Your task to perform on an android device: Open notification settings Image 0: 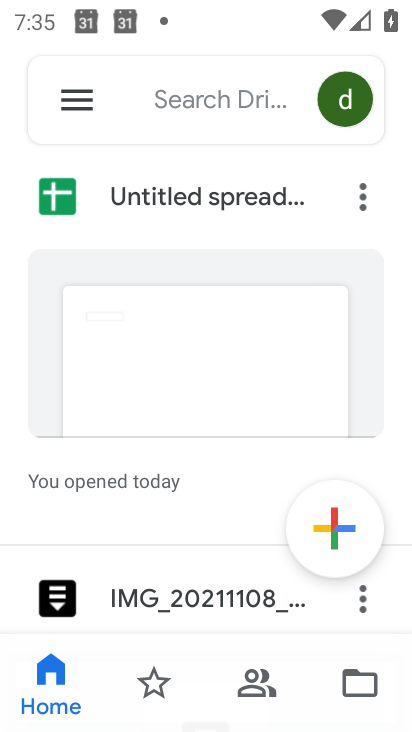
Step 0: press home button
Your task to perform on an android device: Open notification settings Image 1: 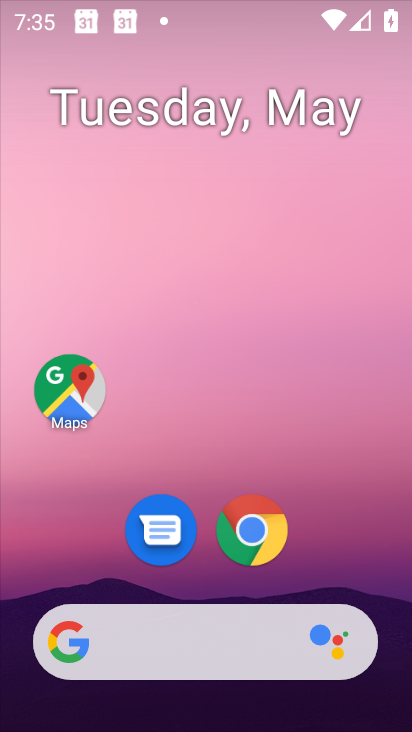
Step 1: drag from (122, 731) to (235, 62)
Your task to perform on an android device: Open notification settings Image 2: 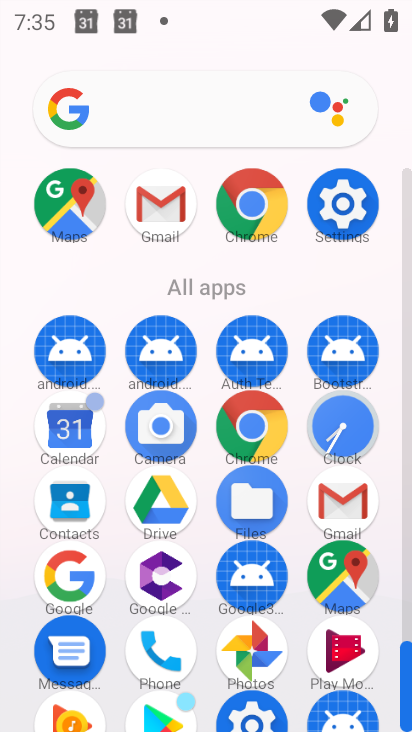
Step 2: click (356, 223)
Your task to perform on an android device: Open notification settings Image 3: 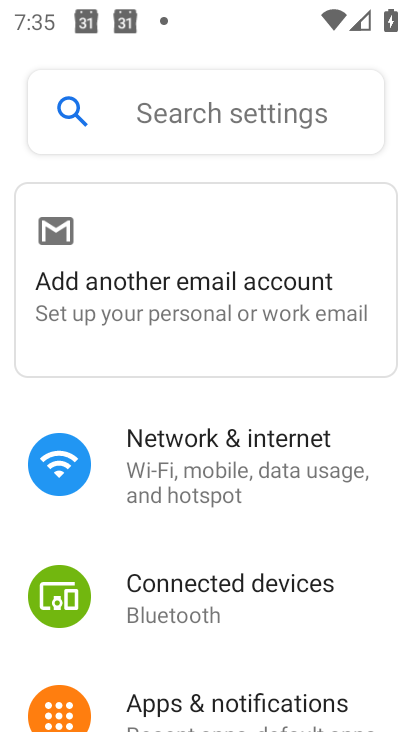
Step 3: click (317, 704)
Your task to perform on an android device: Open notification settings Image 4: 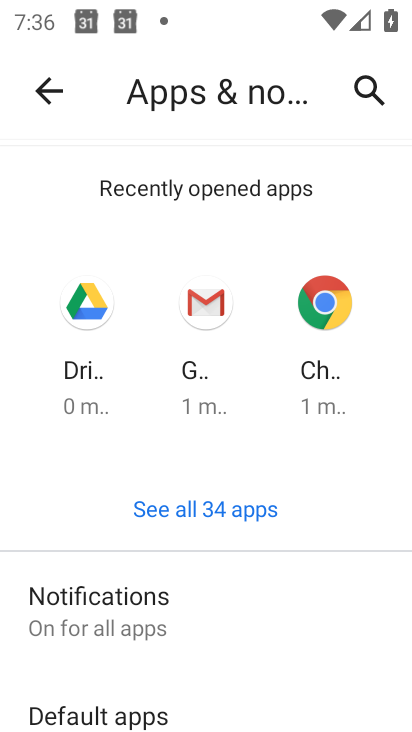
Step 4: task complete